Your task to perform on an android device: turn off data saver in the chrome app Image 0: 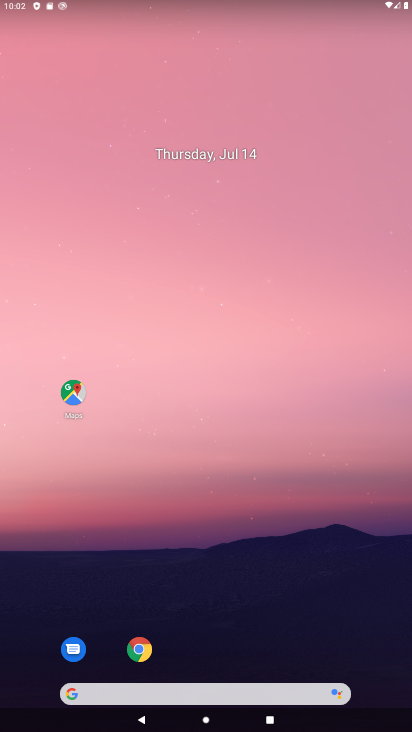
Step 0: drag from (273, 648) to (224, 177)
Your task to perform on an android device: turn off data saver in the chrome app Image 1: 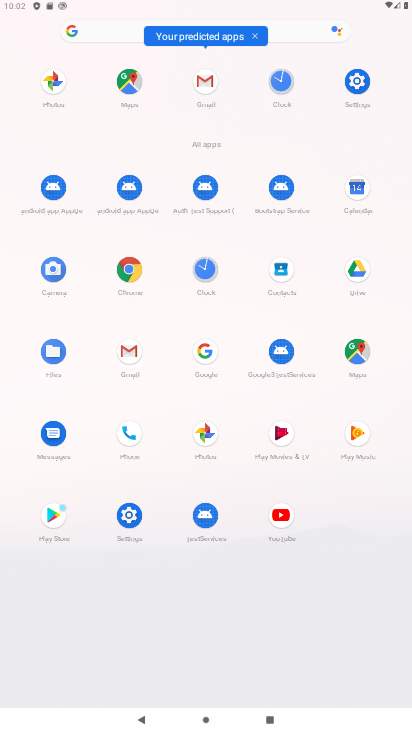
Step 1: click (138, 266)
Your task to perform on an android device: turn off data saver in the chrome app Image 2: 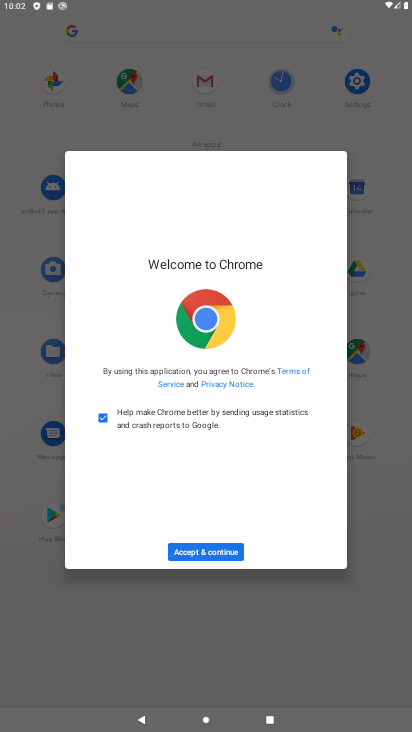
Step 2: click (212, 549)
Your task to perform on an android device: turn off data saver in the chrome app Image 3: 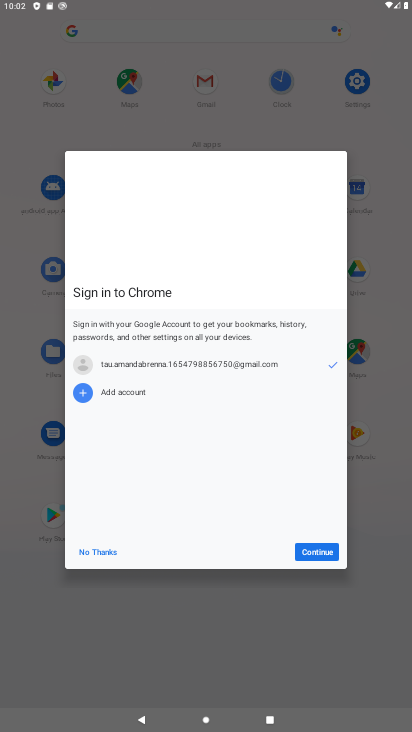
Step 3: click (323, 553)
Your task to perform on an android device: turn off data saver in the chrome app Image 4: 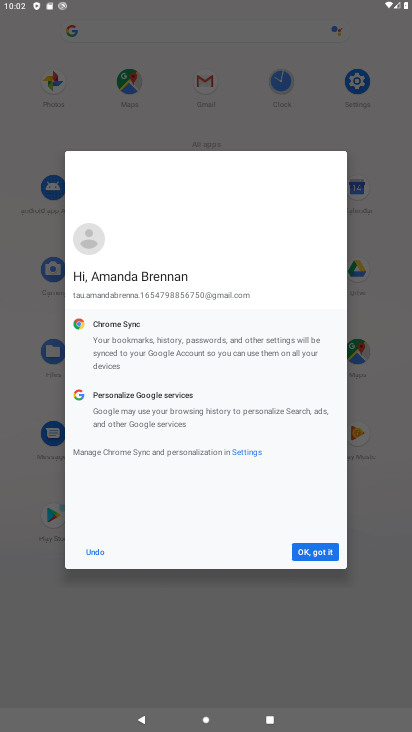
Step 4: click (323, 553)
Your task to perform on an android device: turn off data saver in the chrome app Image 5: 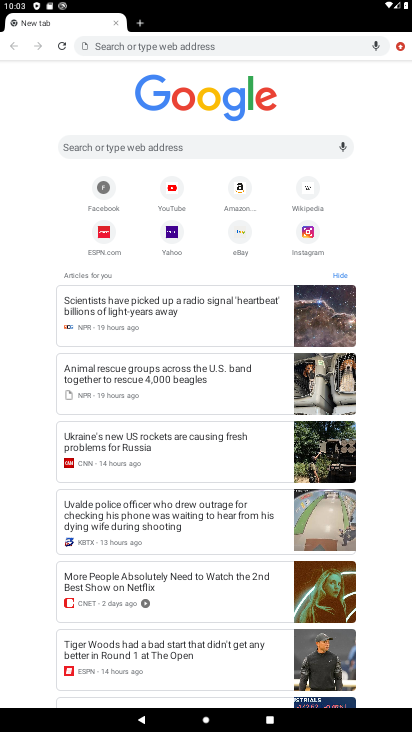
Step 5: click (398, 51)
Your task to perform on an android device: turn off data saver in the chrome app Image 6: 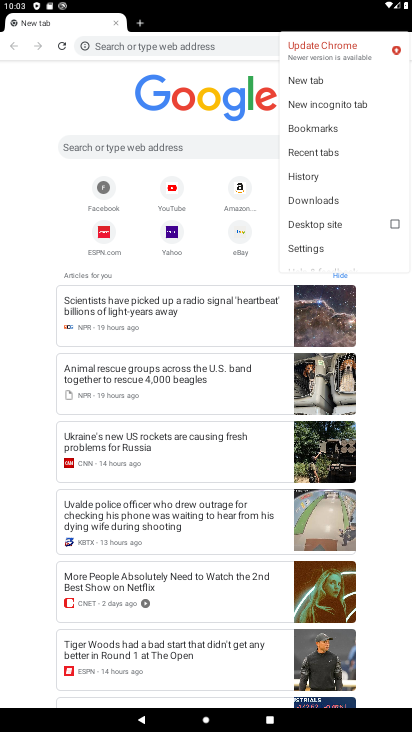
Step 6: click (336, 251)
Your task to perform on an android device: turn off data saver in the chrome app Image 7: 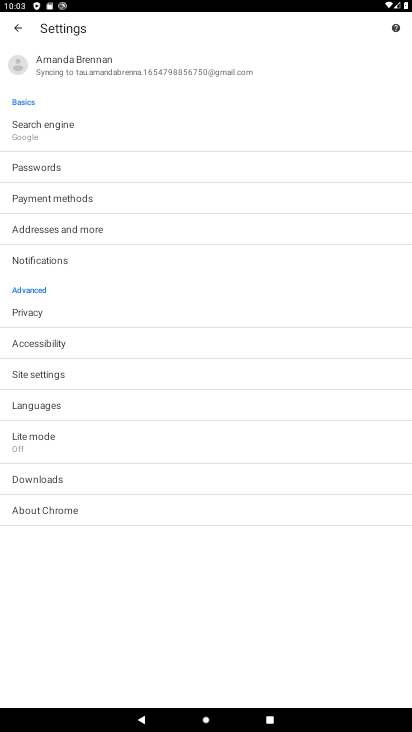
Step 7: click (66, 433)
Your task to perform on an android device: turn off data saver in the chrome app Image 8: 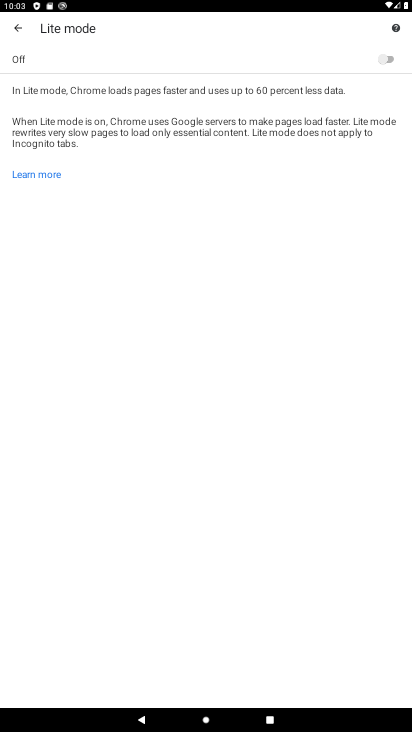
Step 8: task complete